Your task to perform on an android device: Go to eBay Image 0: 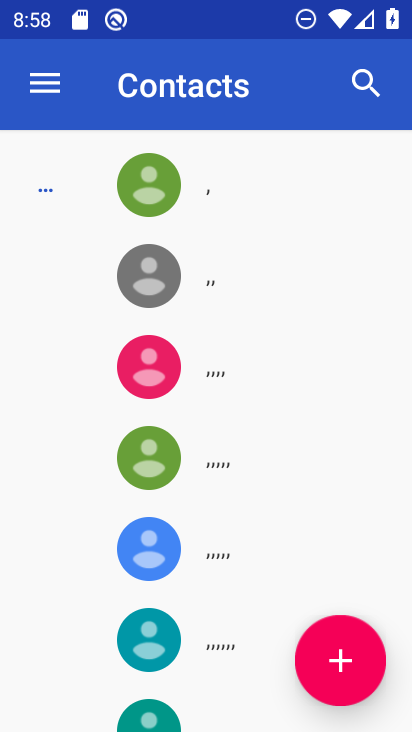
Step 0: press home button
Your task to perform on an android device: Go to eBay Image 1: 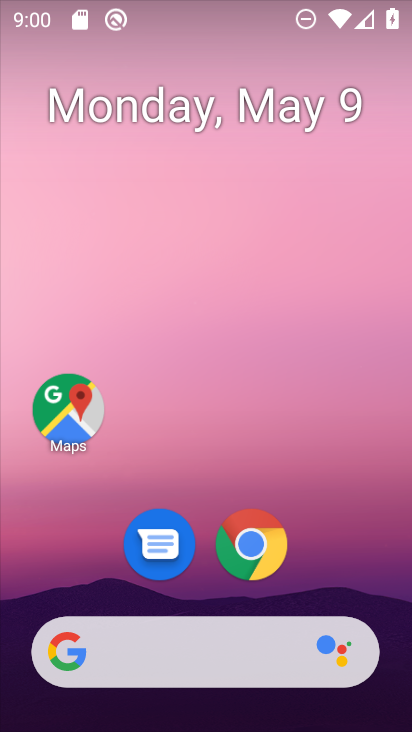
Step 1: click (253, 550)
Your task to perform on an android device: Go to eBay Image 2: 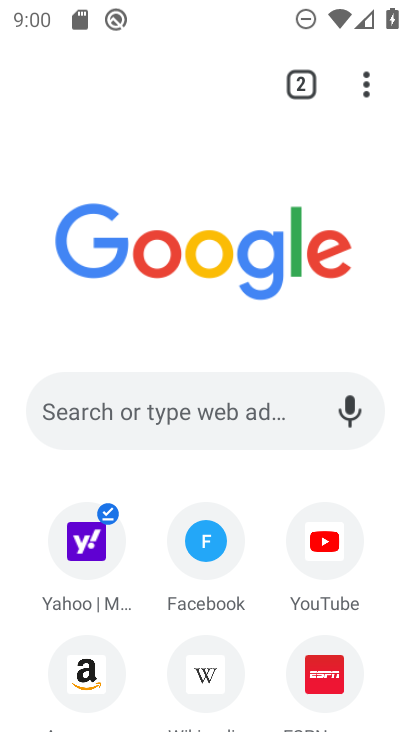
Step 2: click (121, 377)
Your task to perform on an android device: Go to eBay Image 3: 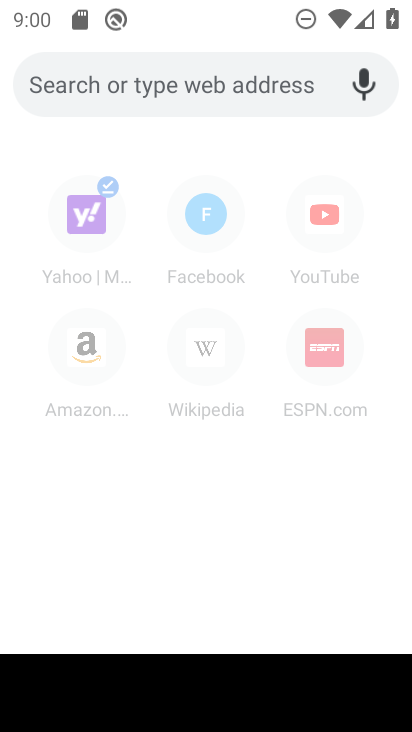
Step 3: type "ebay"
Your task to perform on an android device: Go to eBay Image 4: 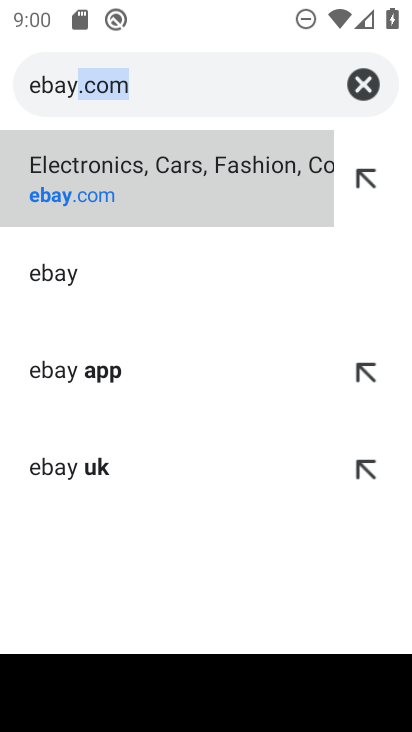
Step 4: click (63, 269)
Your task to perform on an android device: Go to eBay Image 5: 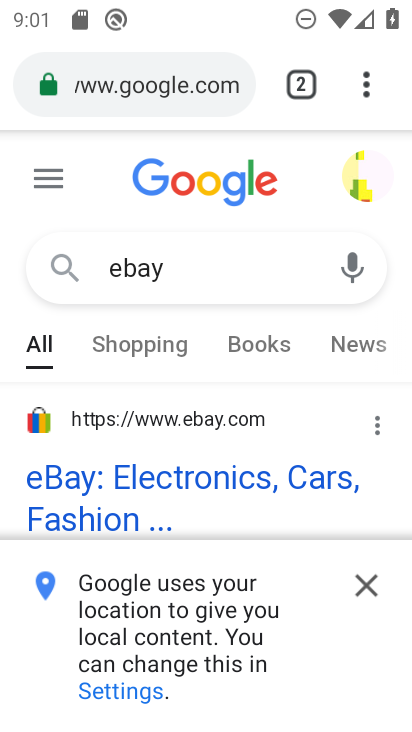
Step 5: task complete